Your task to perform on an android device: turn on javascript in the chrome app Image 0: 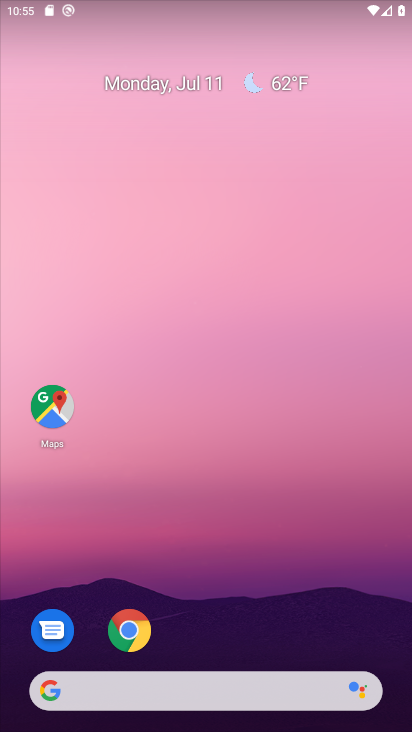
Step 0: click (137, 627)
Your task to perform on an android device: turn on javascript in the chrome app Image 1: 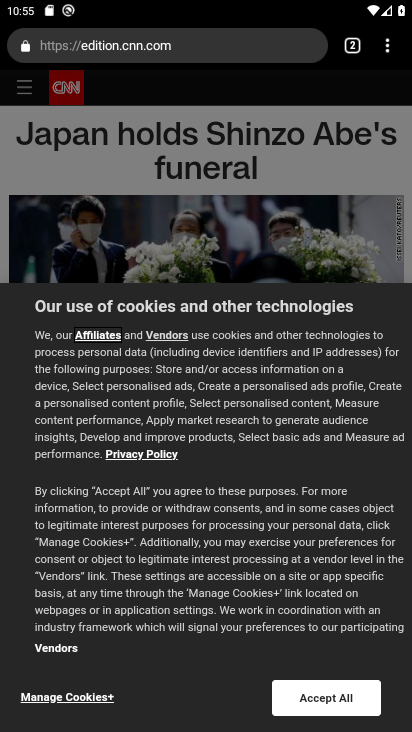
Step 1: click (392, 50)
Your task to perform on an android device: turn on javascript in the chrome app Image 2: 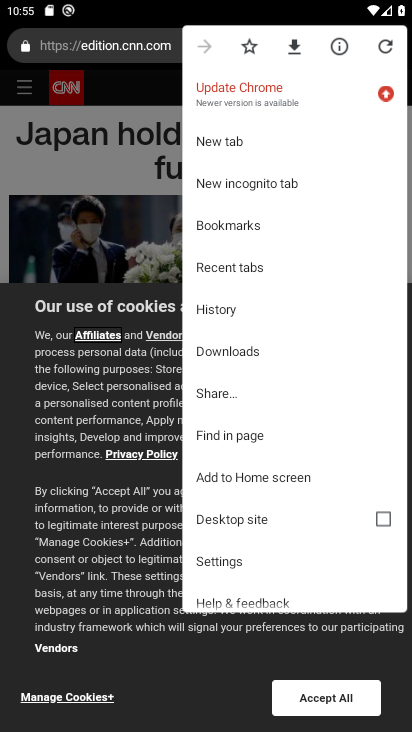
Step 2: click (219, 560)
Your task to perform on an android device: turn on javascript in the chrome app Image 3: 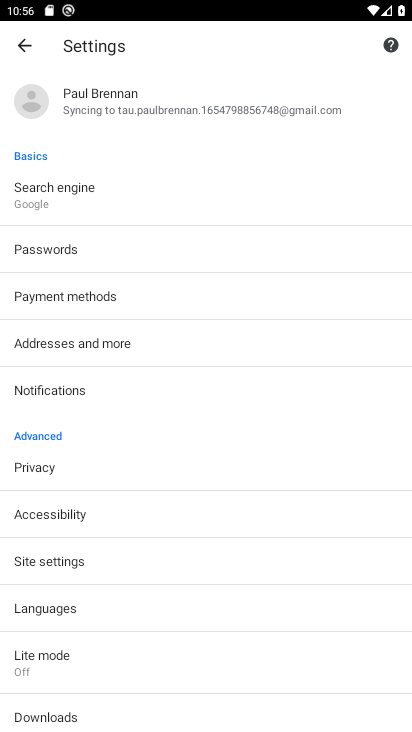
Step 3: click (78, 562)
Your task to perform on an android device: turn on javascript in the chrome app Image 4: 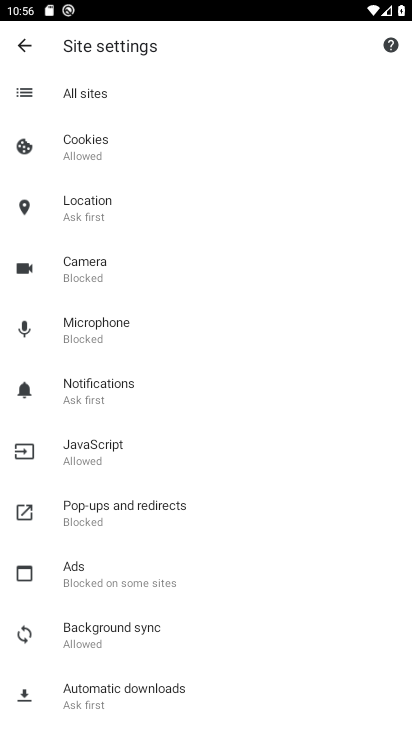
Step 4: click (103, 449)
Your task to perform on an android device: turn on javascript in the chrome app Image 5: 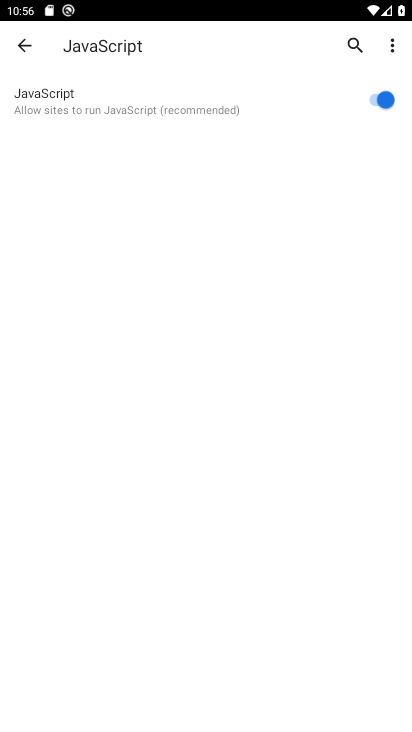
Step 5: task complete